Your task to perform on an android device: add a contact in the contacts app Image 0: 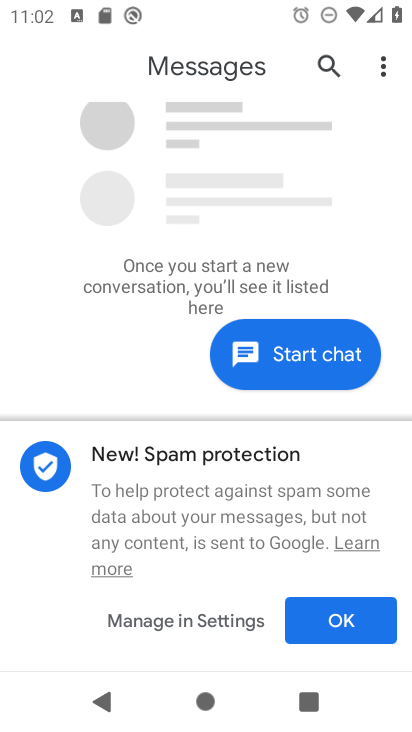
Step 0: press home button
Your task to perform on an android device: add a contact in the contacts app Image 1: 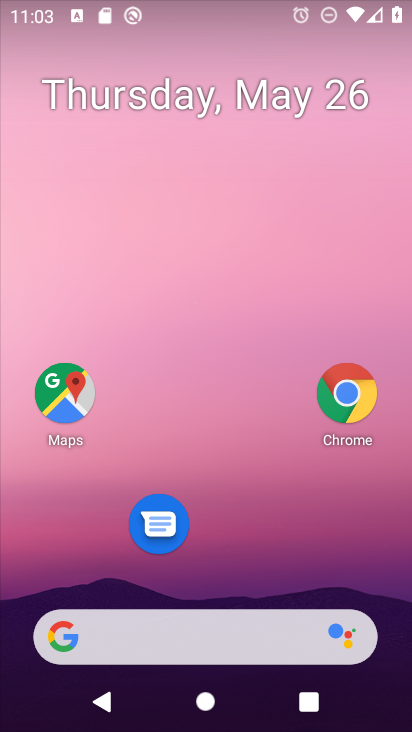
Step 1: drag from (248, 540) to (213, 16)
Your task to perform on an android device: add a contact in the contacts app Image 2: 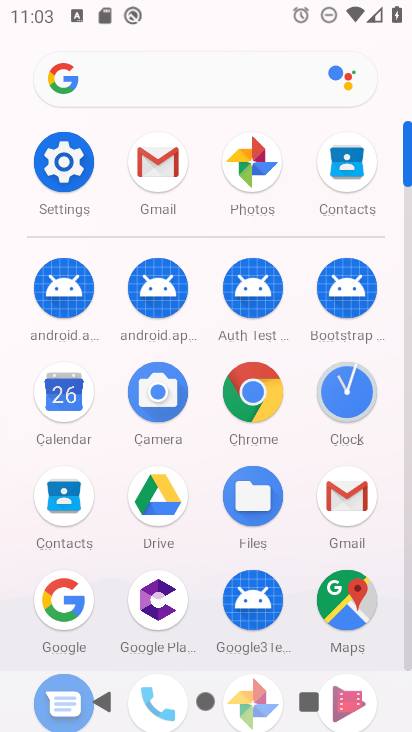
Step 2: click (349, 165)
Your task to perform on an android device: add a contact in the contacts app Image 3: 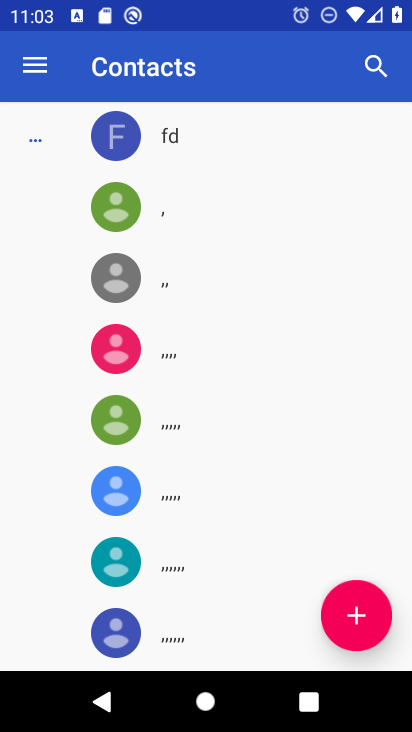
Step 3: click (353, 607)
Your task to perform on an android device: add a contact in the contacts app Image 4: 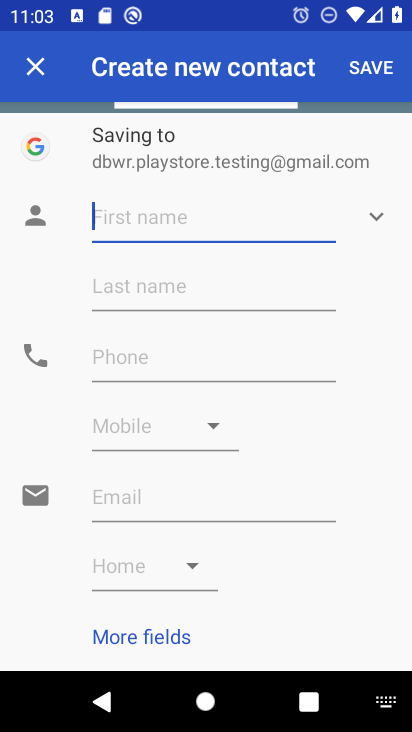
Step 4: type "Murli Manohar Joshi"
Your task to perform on an android device: add a contact in the contacts app Image 5: 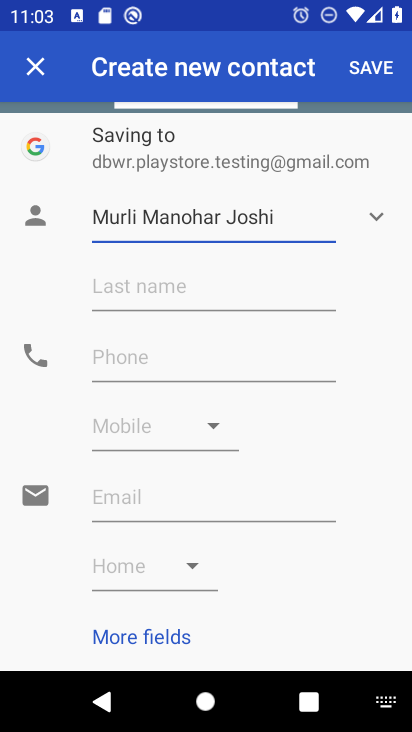
Step 5: click (264, 359)
Your task to perform on an android device: add a contact in the contacts app Image 6: 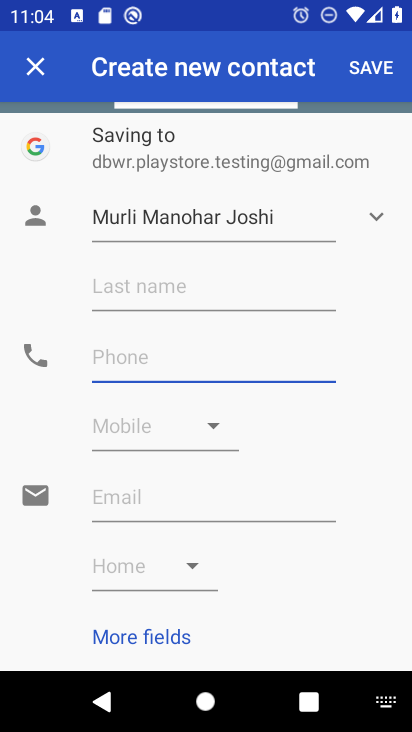
Step 6: type "011223000021"
Your task to perform on an android device: add a contact in the contacts app Image 7: 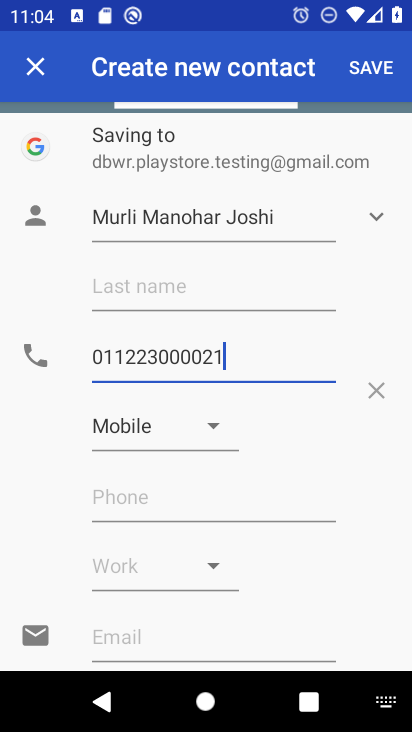
Step 7: click (381, 66)
Your task to perform on an android device: add a contact in the contacts app Image 8: 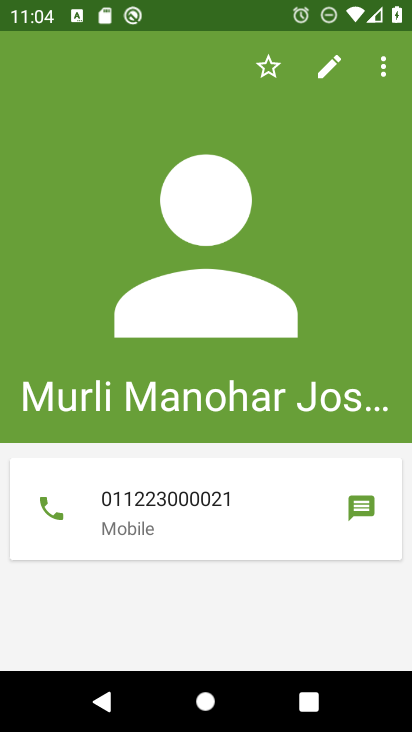
Step 8: task complete